Your task to perform on an android device: show emergency info Image 0: 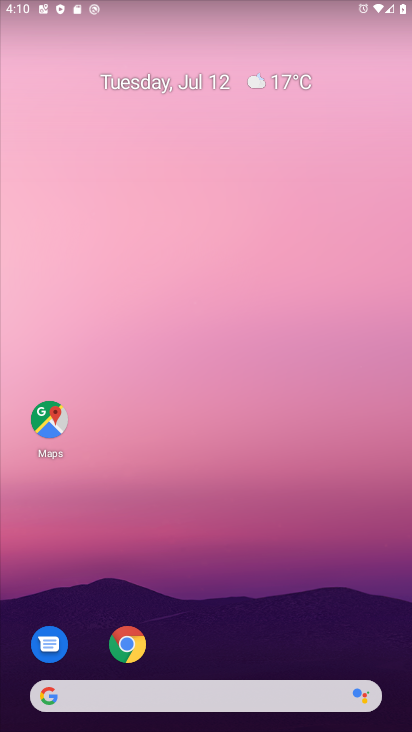
Step 0: drag from (244, 651) to (201, 77)
Your task to perform on an android device: show emergency info Image 1: 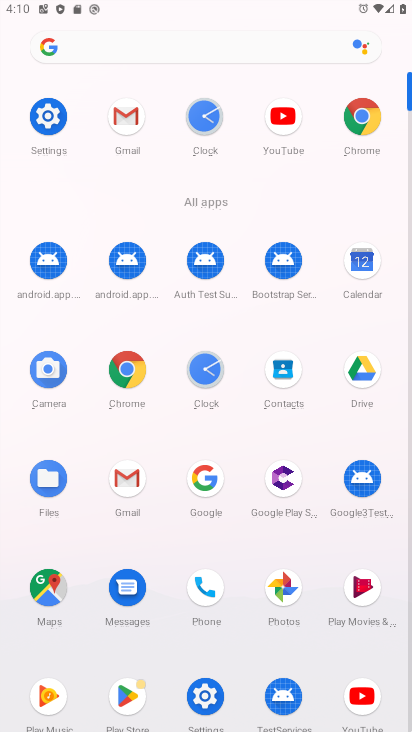
Step 1: click (56, 130)
Your task to perform on an android device: show emergency info Image 2: 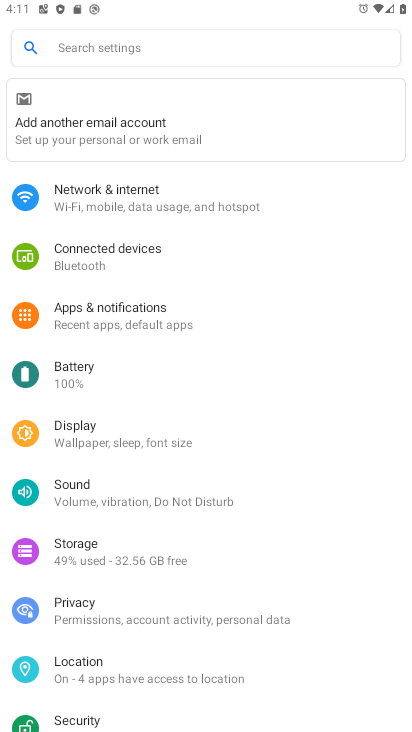
Step 2: drag from (201, 703) to (152, 184)
Your task to perform on an android device: show emergency info Image 3: 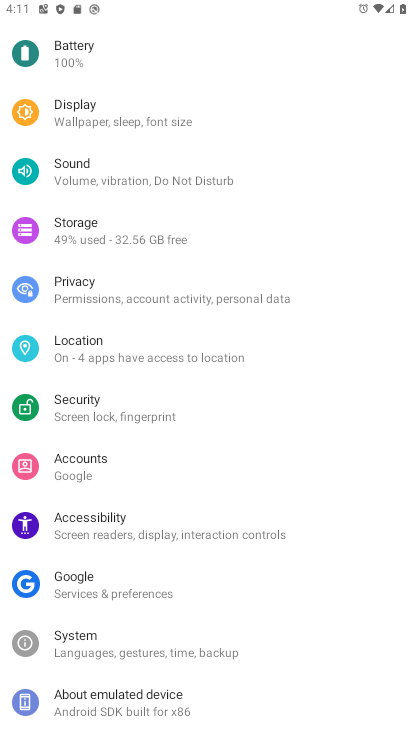
Step 3: click (194, 696)
Your task to perform on an android device: show emergency info Image 4: 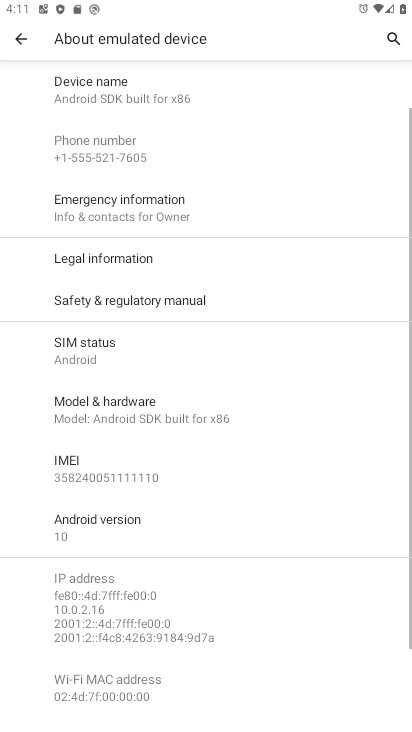
Step 4: click (293, 206)
Your task to perform on an android device: show emergency info Image 5: 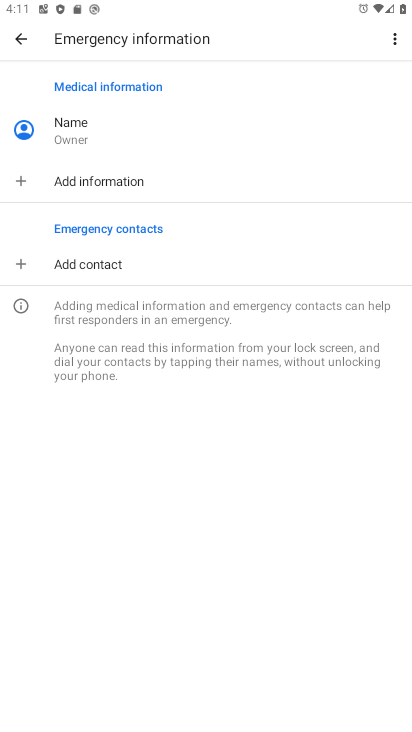
Step 5: task complete